Your task to perform on an android device: open chrome and create a bookmark for the current page Image 0: 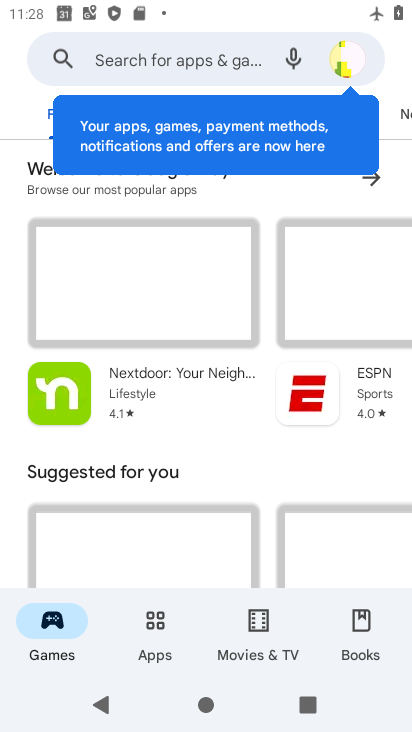
Step 0: press home button
Your task to perform on an android device: open chrome and create a bookmark for the current page Image 1: 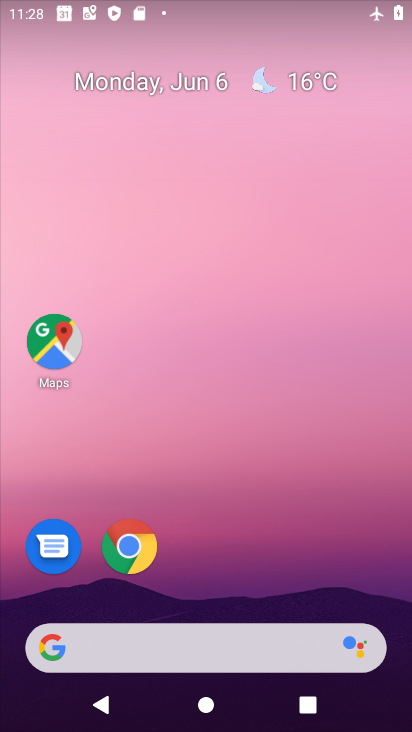
Step 1: click (133, 545)
Your task to perform on an android device: open chrome and create a bookmark for the current page Image 2: 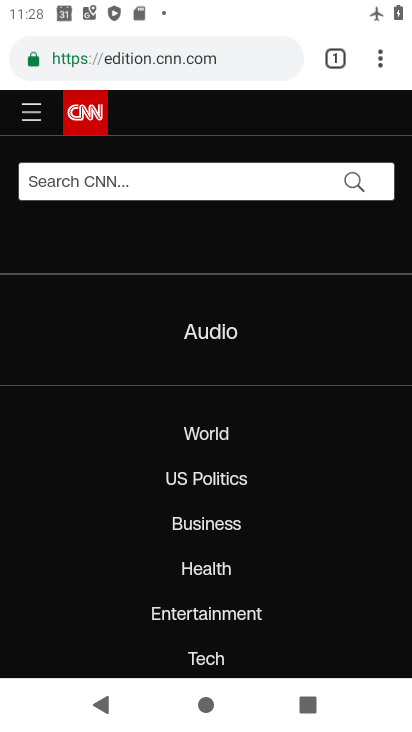
Step 2: click (387, 61)
Your task to perform on an android device: open chrome and create a bookmark for the current page Image 3: 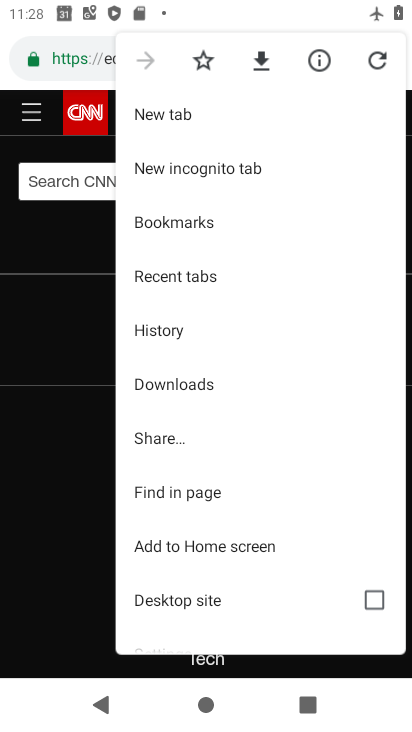
Step 3: click (203, 56)
Your task to perform on an android device: open chrome and create a bookmark for the current page Image 4: 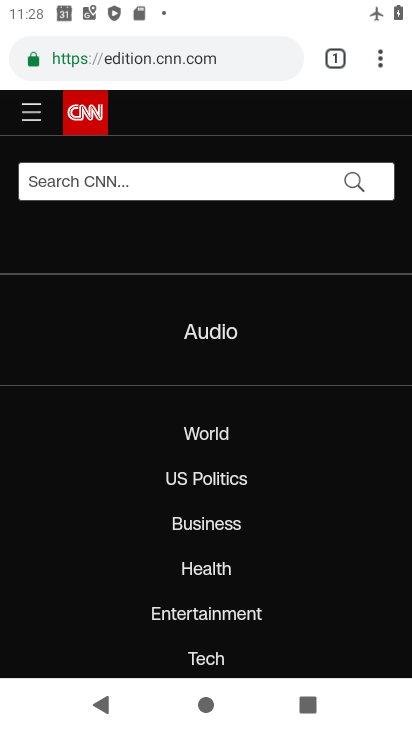
Step 4: task complete